Your task to perform on an android device: uninstall "Lyft - Rideshare, Bikes, Scooters & Transit" Image 0: 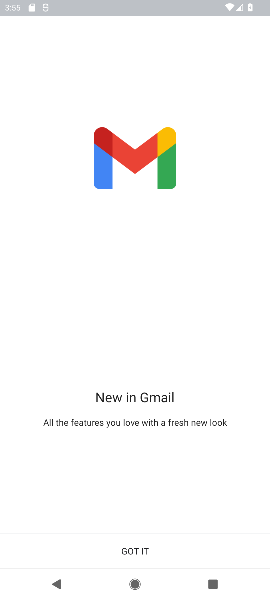
Step 0: press home button
Your task to perform on an android device: uninstall "Lyft - Rideshare, Bikes, Scooters & Transit" Image 1: 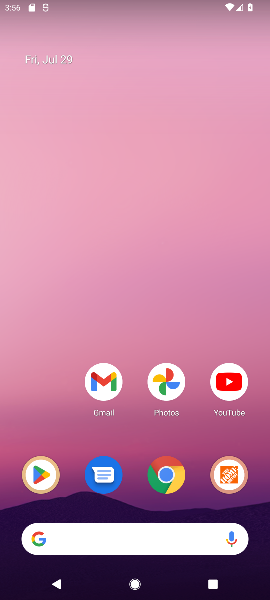
Step 1: click (36, 472)
Your task to perform on an android device: uninstall "Lyft - Rideshare, Bikes, Scooters & Transit" Image 2: 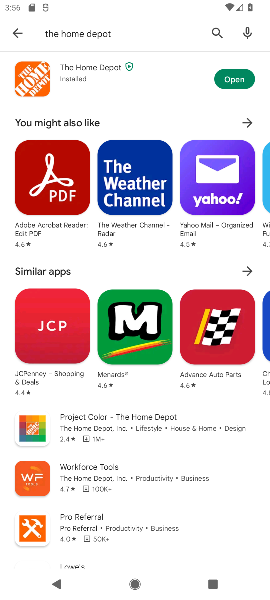
Step 2: click (17, 32)
Your task to perform on an android device: uninstall "Lyft - Rideshare, Bikes, Scooters & Transit" Image 3: 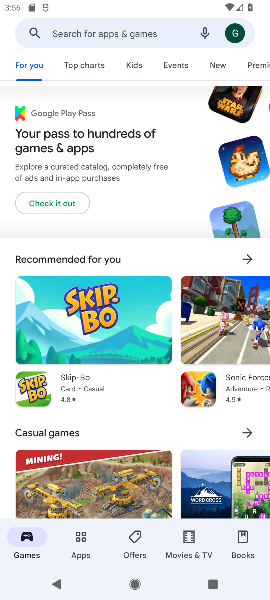
Step 3: click (61, 31)
Your task to perform on an android device: uninstall "Lyft - Rideshare, Bikes, Scooters & Transit" Image 4: 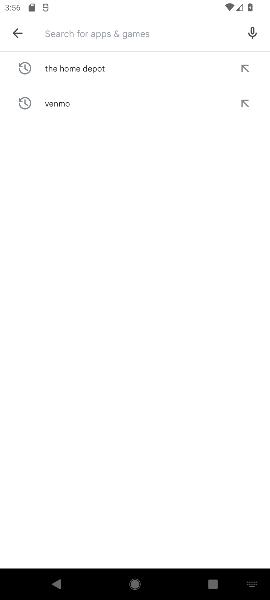
Step 4: type " Rideshare, Bikes, Scooters & Transit"
Your task to perform on an android device: uninstall "Lyft - Rideshare, Bikes, Scooters & Transit" Image 5: 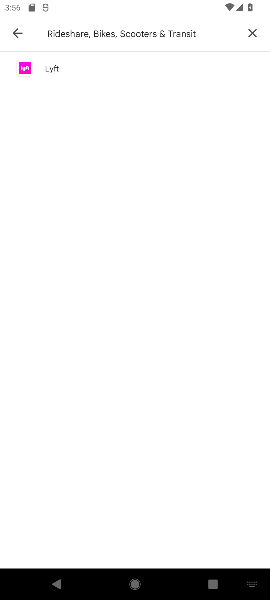
Step 5: click (55, 65)
Your task to perform on an android device: uninstall "Lyft - Rideshare, Bikes, Scooters & Transit" Image 6: 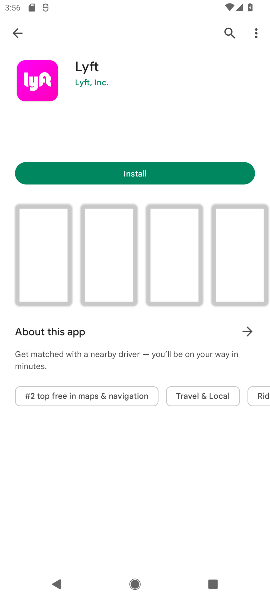
Step 6: click (55, 65)
Your task to perform on an android device: uninstall "Lyft - Rideshare, Bikes, Scooters & Transit" Image 7: 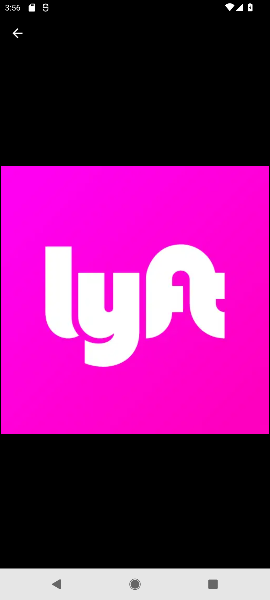
Step 7: click (16, 29)
Your task to perform on an android device: uninstall "Lyft - Rideshare, Bikes, Scooters & Transit" Image 8: 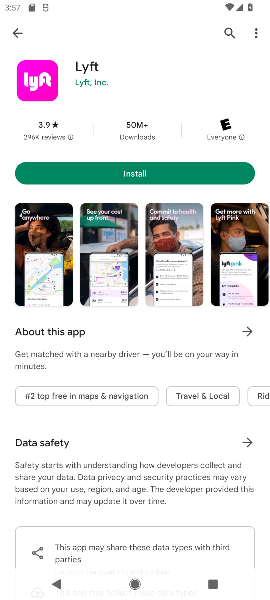
Step 8: click (120, 170)
Your task to perform on an android device: uninstall "Lyft - Rideshare, Bikes, Scooters & Transit" Image 9: 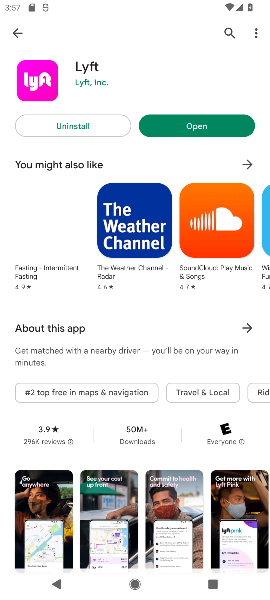
Step 9: click (96, 121)
Your task to perform on an android device: uninstall "Lyft - Rideshare, Bikes, Scooters & Transit" Image 10: 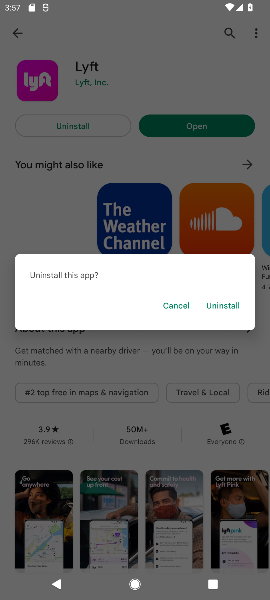
Step 10: click (221, 302)
Your task to perform on an android device: uninstall "Lyft - Rideshare, Bikes, Scooters & Transit" Image 11: 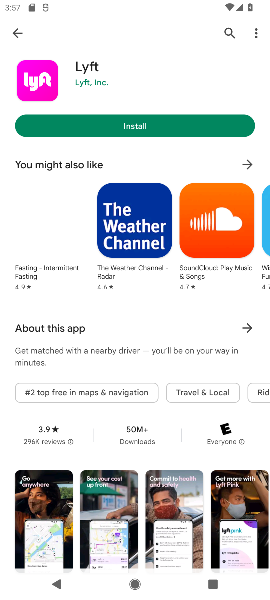
Step 11: task complete